Your task to perform on an android device: turn notification dots on Image 0: 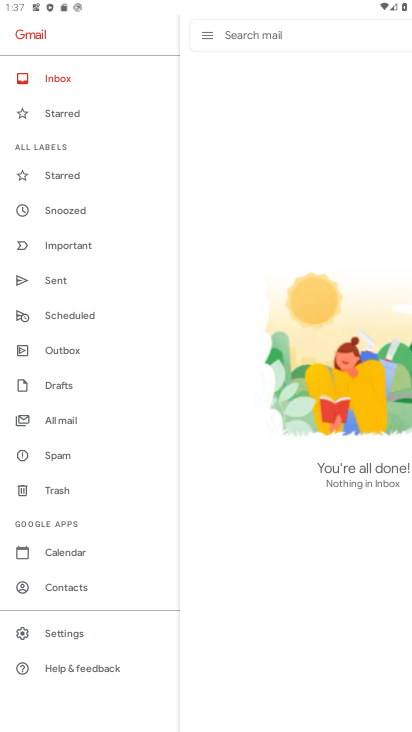
Step 0: press home button
Your task to perform on an android device: turn notification dots on Image 1: 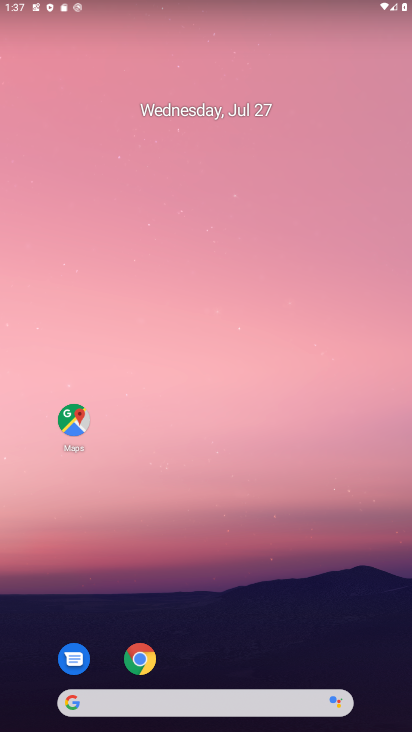
Step 1: drag from (261, 554) to (266, 4)
Your task to perform on an android device: turn notification dots on Image 2: 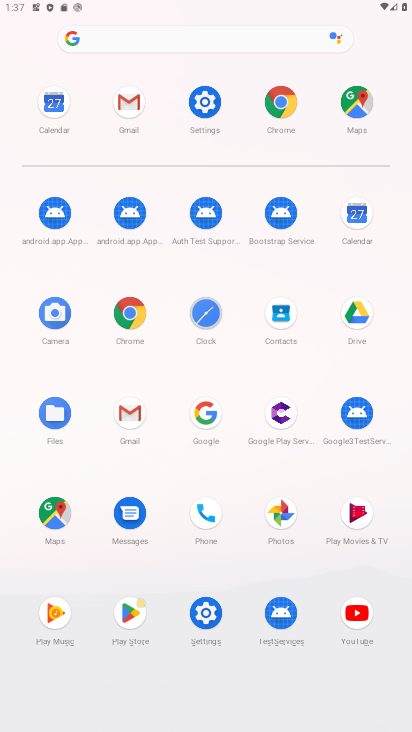
Step 2: click (212, 98)
Your task to perform on an android device: turn notification dots on Image 3: 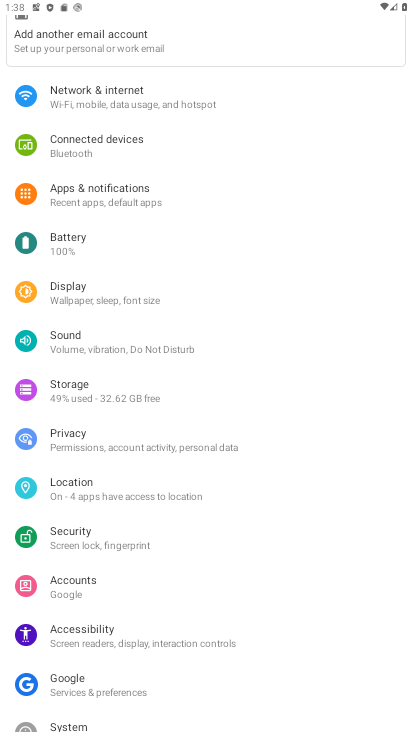
Step 3: click (126, 190)
Your task to perform on an android device: turn notification dots on Image 4: 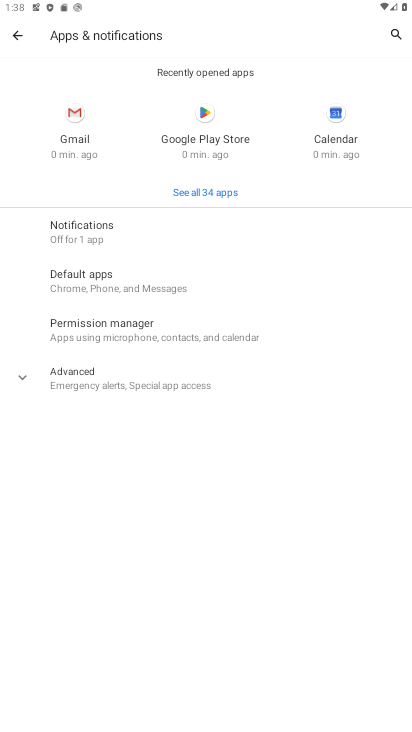
Step 4: click (77, 228)
Your task to perform on an android device: turn notification dots on Image 5: 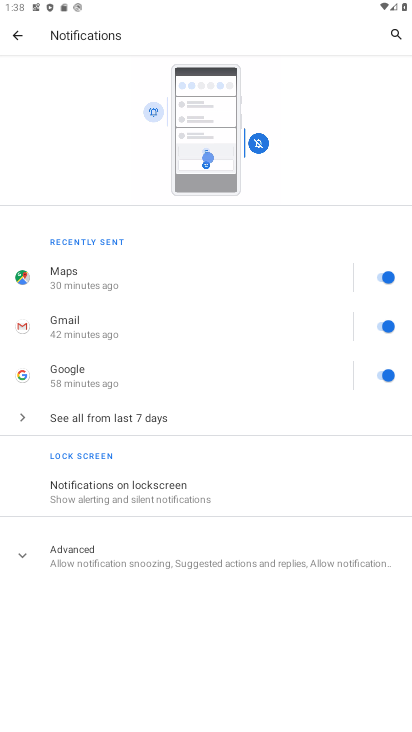
Step 5: click (108, 562)
Your task to perform on an android device: turn notification dots on Image 6: 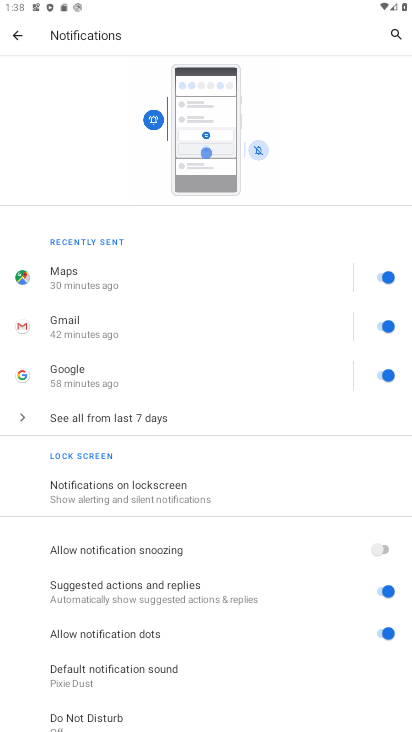
Step 6: task complete